Your task to perform on an android device: What's the weather today? Image 0: 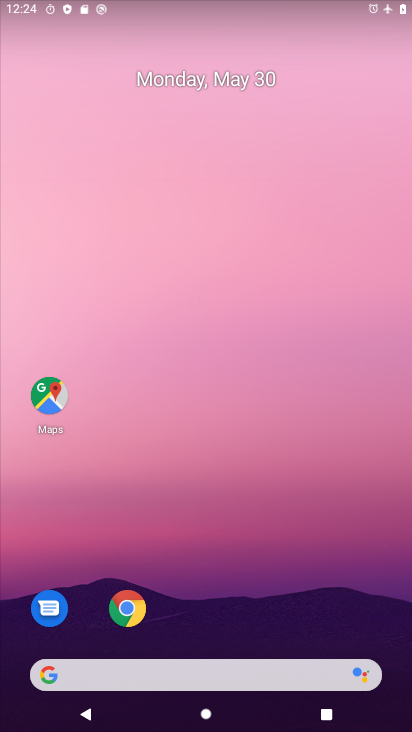
Step 0: click (215, 670)
Your task to perform on an android device: What's the weather today? Image 1: 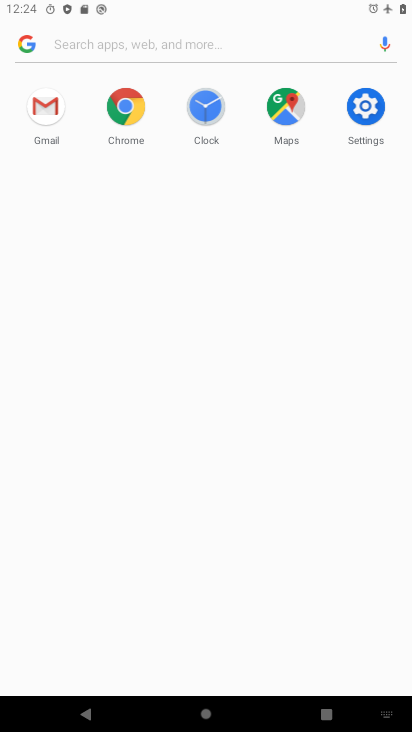
Step 1: task complete